Your task to perform on an android device: Open Android settings Image 0: 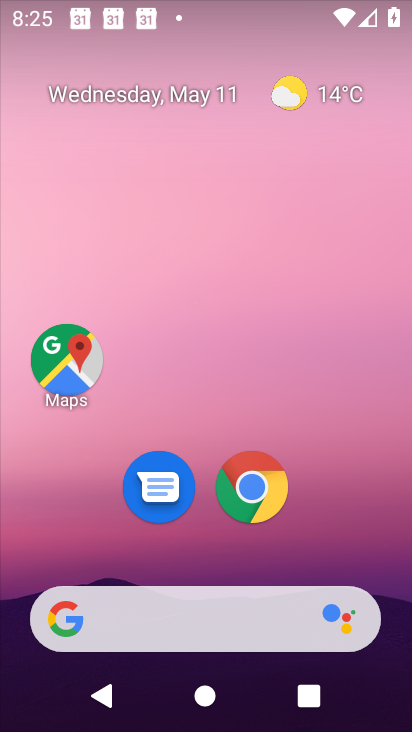
Step 0: drag from (224, 730) to (233, 277)
Your task to perform on an android device: Open Android settings Image 1: 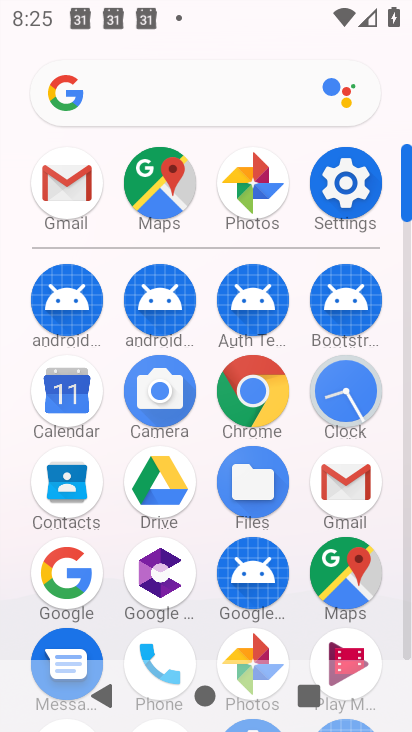
Step 1: click (340, 186)
Your task to perform on an android device: Open Android settings Image 2: 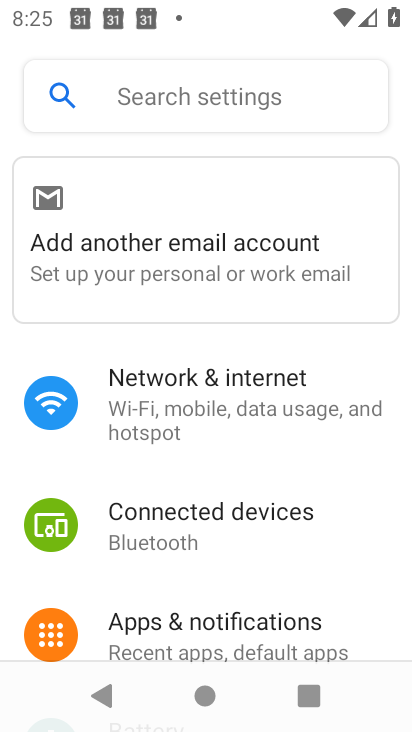
Step 2: task complete